Your task to perform on an android device: Go to Google maps Image 0: 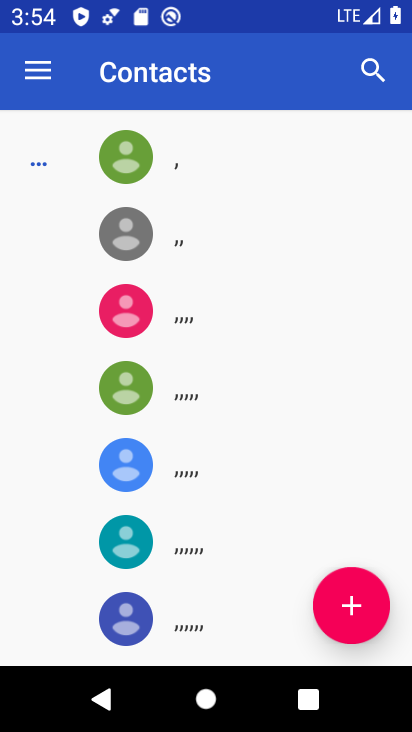
Step 0: press home button
Your task to perform on an android device: Go to Google maps Image 1: 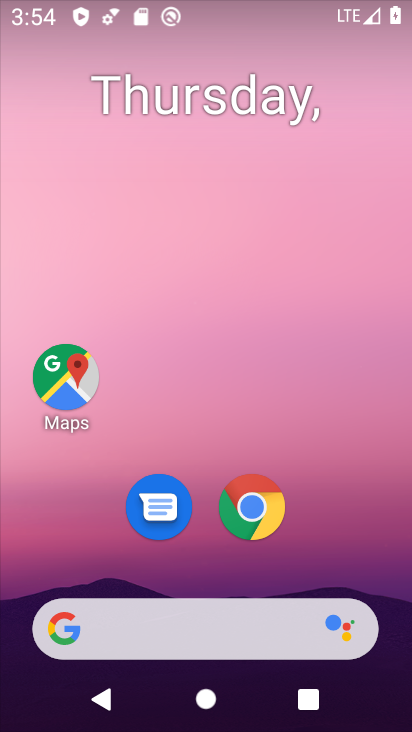
Step 1: click (69, 369)
Your task to perform on an android device: Go to Google maps Image 2: 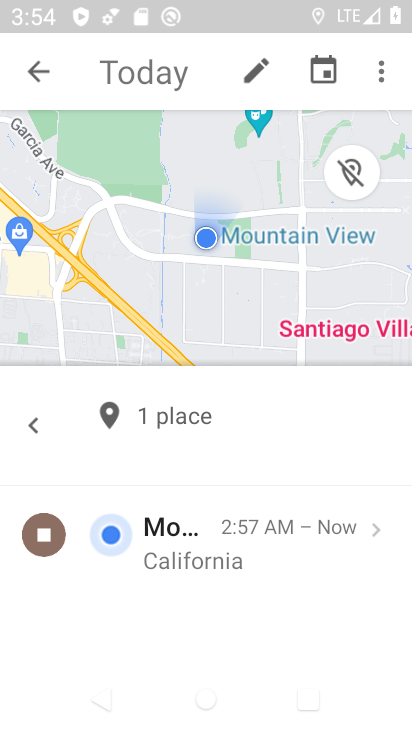
Step 2: task complete